Your task to perform on an android device: Open ESPN.com Image 0: 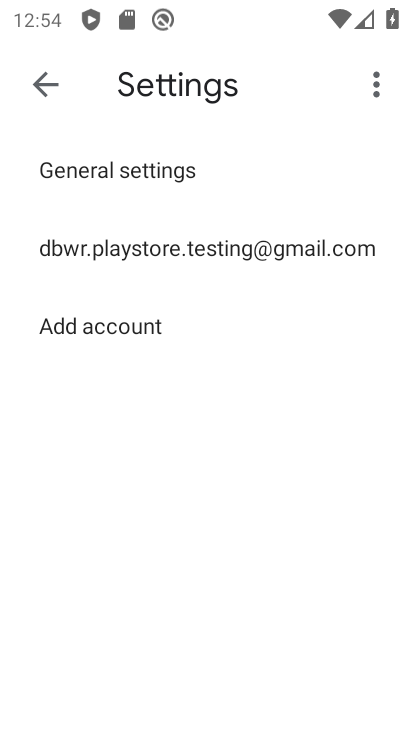
Step 0: press home button
Your task to perform on an android device: Open ESPN.com Image 1: 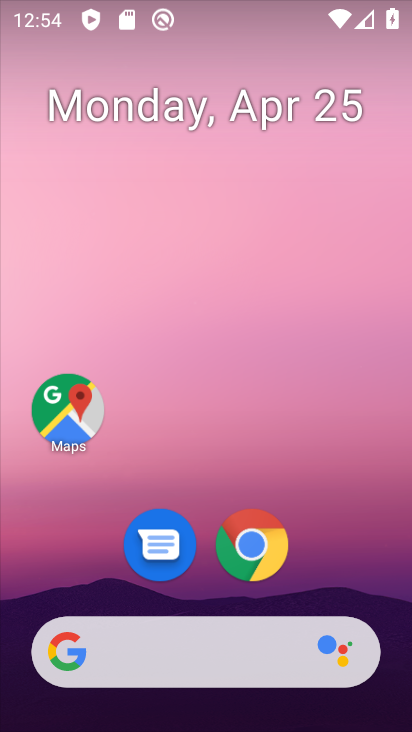
Step 1: click (257, 536)
Your task to perform on an android device: Open ESPN.com Image 2: 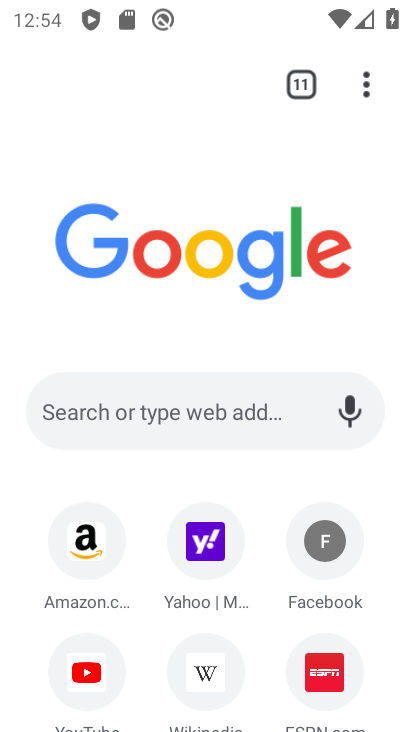
Step 2: click (338, 663)
Your task to perform on an android device: Open ESPN.com Image 3: 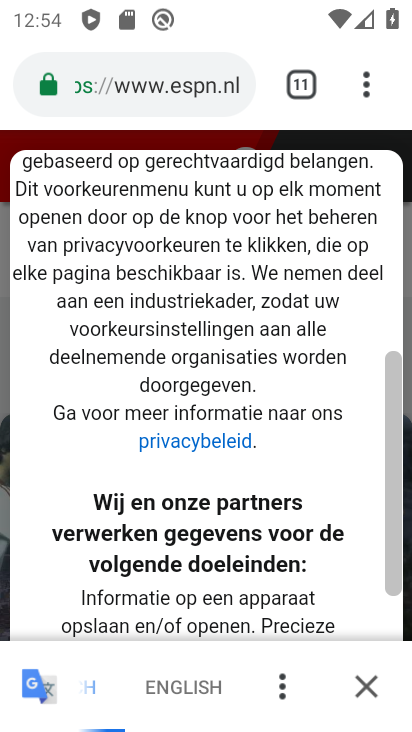
Step 3: task complete